Your task to perform on an android device: turn off translation in the chrome app Image 0: 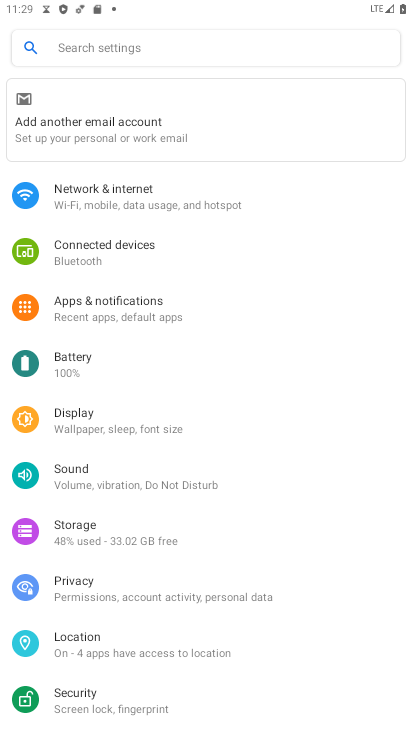
Step 0: press back button
Your task to perform on an android device: turn off translation in the chrome app Image 1: 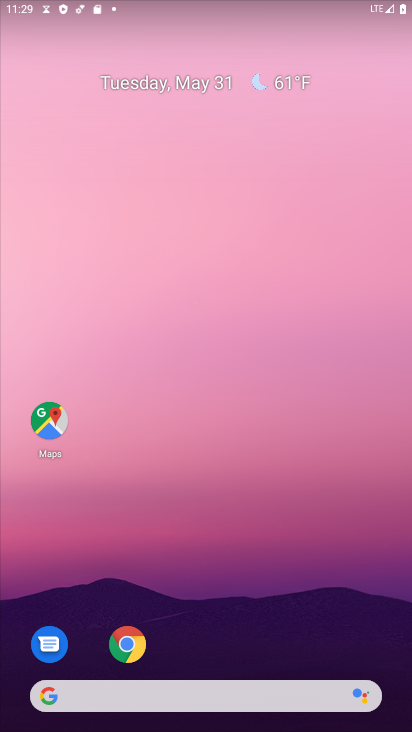
Step 1: click (130, 643)
Your task to perform on an android device: turn off translation in the chrome app Image 2: 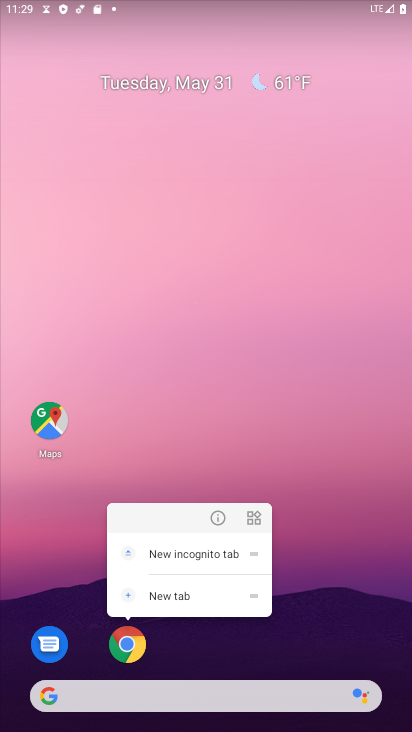
Step 2: click (125, 648)
Your task to perform on an android device: turn off translation in the chrome app Image 3: 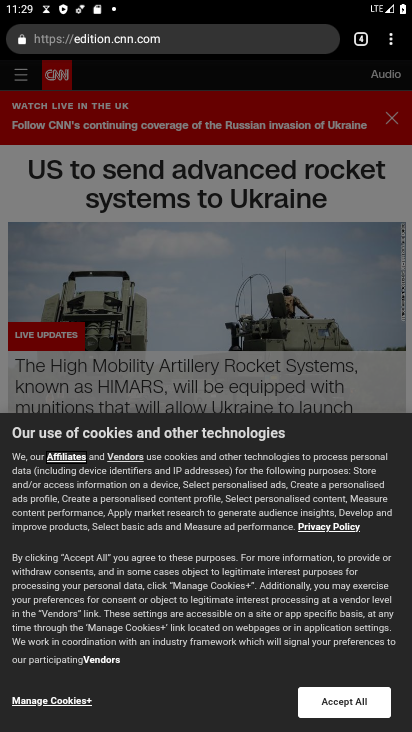
Step 3: drag from (387, 42) to (241, 434)
Your task to perform on an android device: turn off translation in the chrome app Image 4: 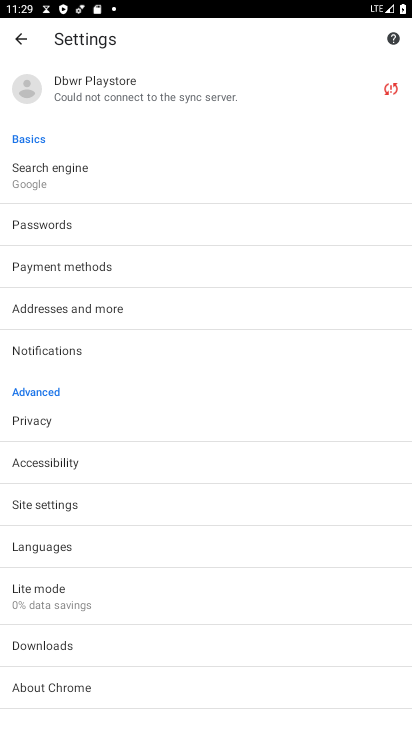
Step 4: click (46, 546)
Your task to perform on an android device: turn off translation in the chrome app Image 5: 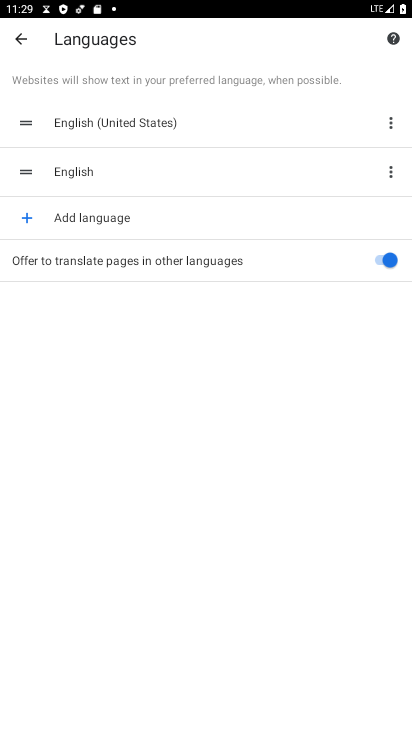
Step 5: click (386, 262)
Your task to perform on an android device: turn off translation in the chrome app Image 6: 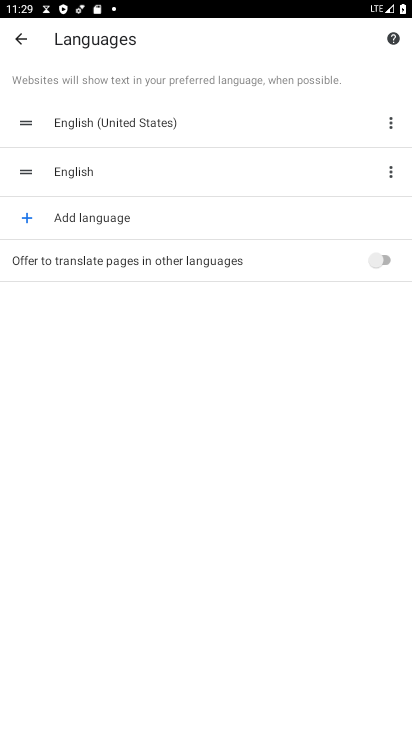
Step 6: task complete